Your task to perform on an android device: check data usage Image 0: 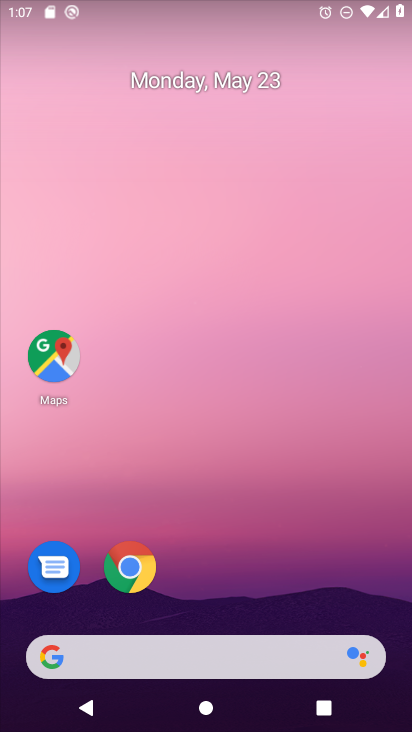
Step 0: drag from (242, 287) to (222, 548)
Your task to perform on an android device: check data usage Image 1: 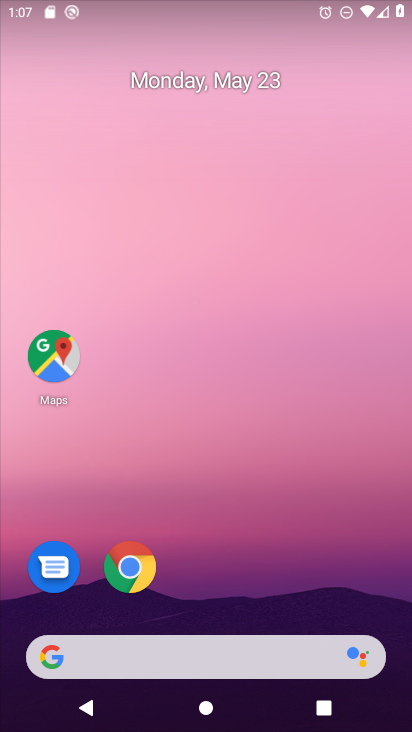
Step 1: drag from (298, 34) to (149, 582)
Your task to perform on an android device: check data usage Image 2: 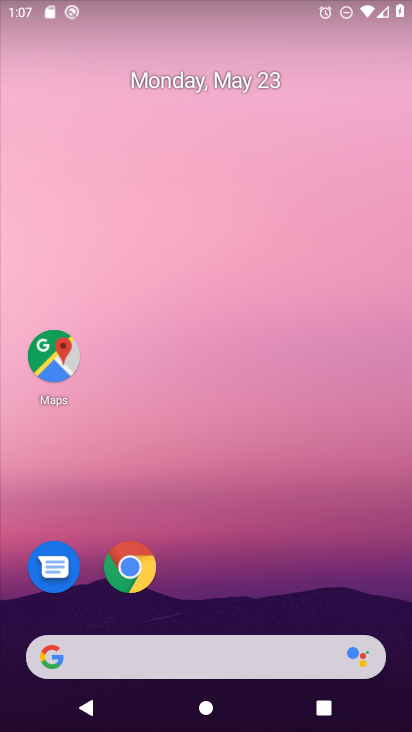
Step 2: drag from (215, 20) to (215, 404)
Your task to perform on an android device: check data usage Image 3: 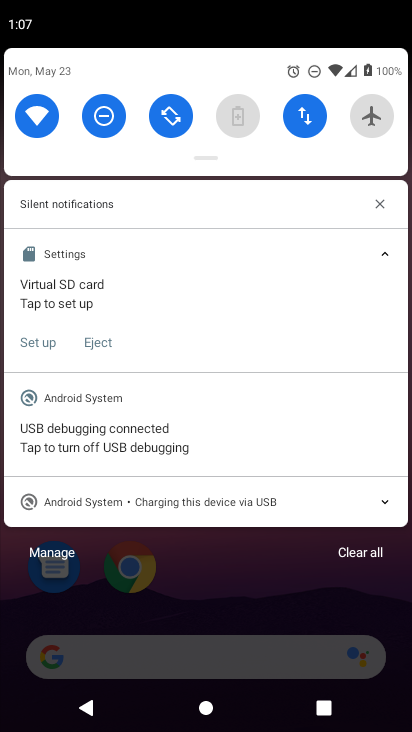
Step 3: click (311, 113)
Your task to perform on an android device: check data usage Image 4: 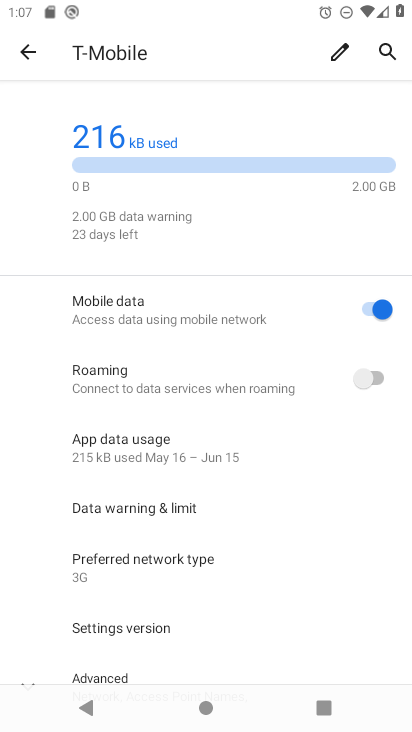
Step 4: task complete